Your task to perform on an android device: Go to Yahoo.com Image 0: 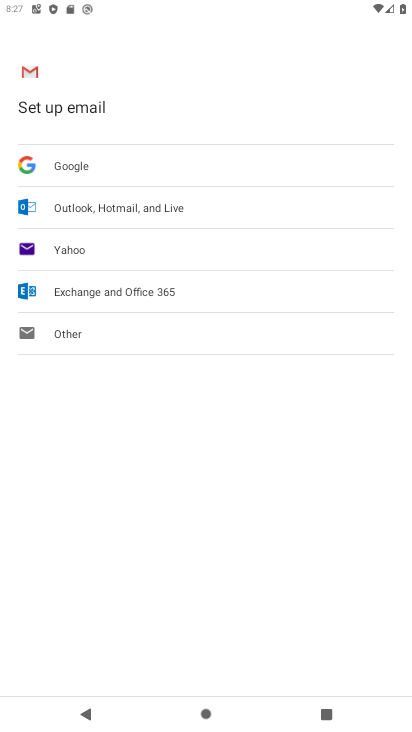
Step 0: press back button
Your task to perform on an android device: Go to Yahoo.com Image 1: 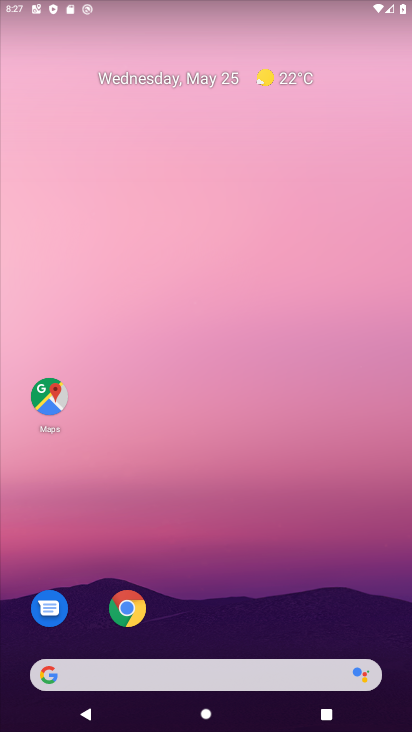
Step 1: click (125, 609)
Your task to perform on an android device: Go to Yahoo.com Image 2: 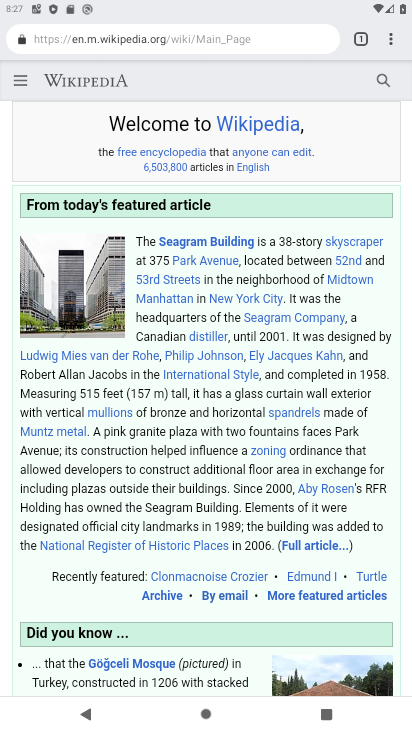
Step 2: click (261, 35)
Your task to perform on an android device: Go to Yahoo.com Image 3: 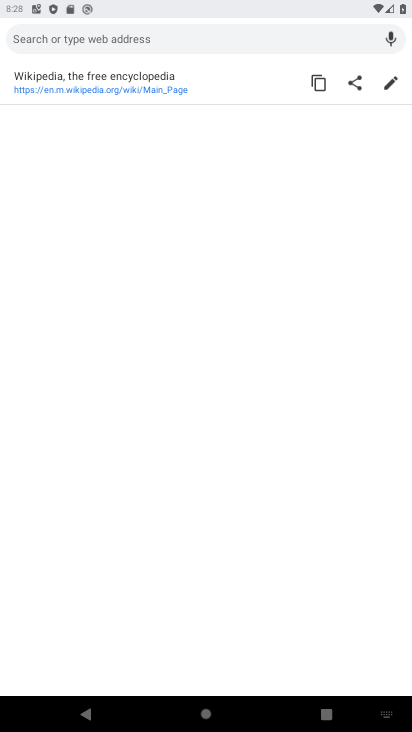
Step 3: type "Yahoo.com"
Your task to perform on an android device: Go to Yahoo.com Image 4: 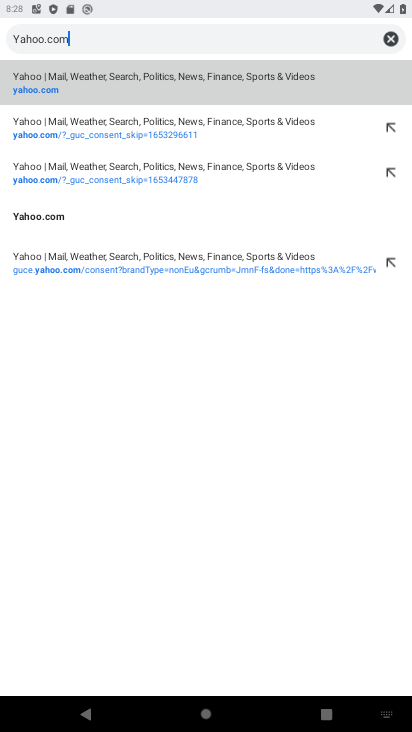
Step 4: click (40, 223)
Your task to perform on an android device: Go to Yahoo.com Image 5: 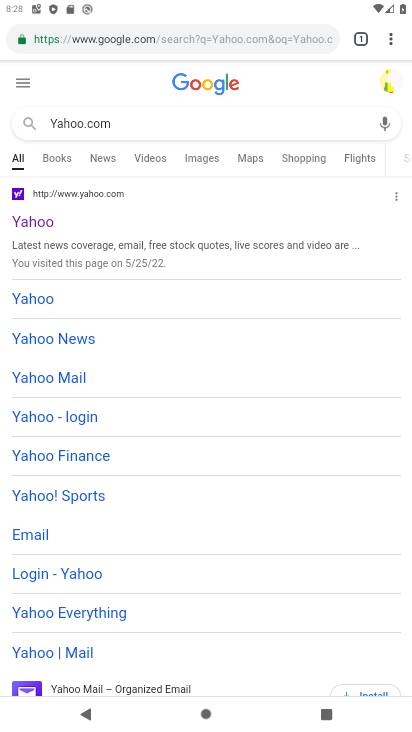
Step 5: click (57, 237)
Your task to perform on an android device: Go to Yahoo.com Image 6: 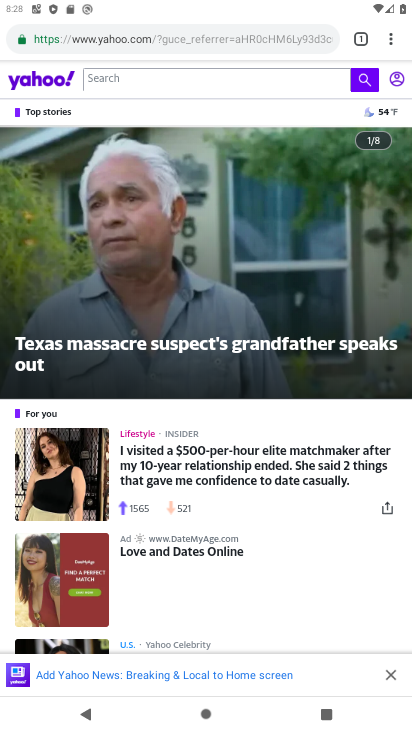
Step 6: task complete